Your task to perform on an android device: Show me recent news Image 0: 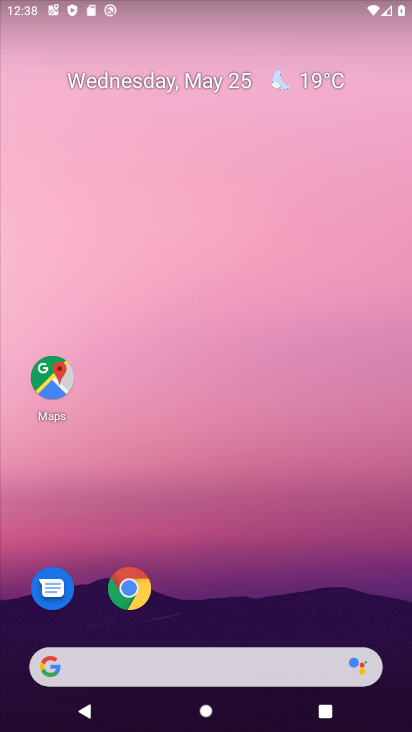
Step 0: drag from (8, 461) to (408, 420)
Your task to perform on an android device: Show me recent news Image 1: 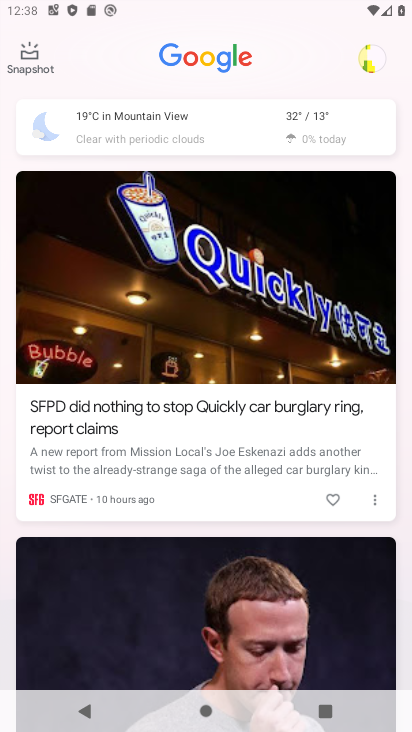
Step 1: task complete